Your task to perform on an android device: open device folders in google photos Image 0: 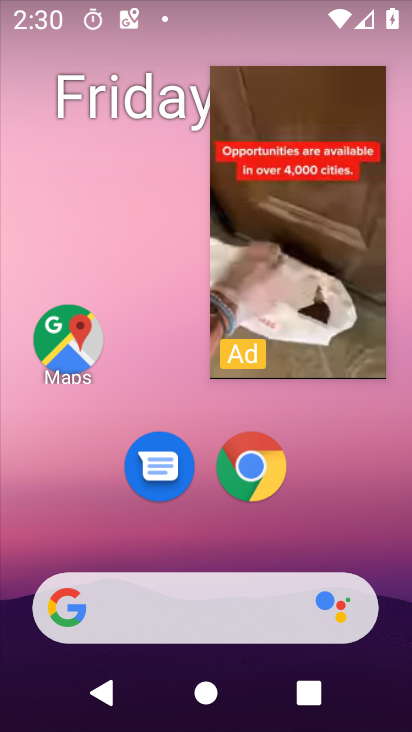
Step 0: click (361, 89)
Your task to perform on an android device: open device folders in google photos Image 1: 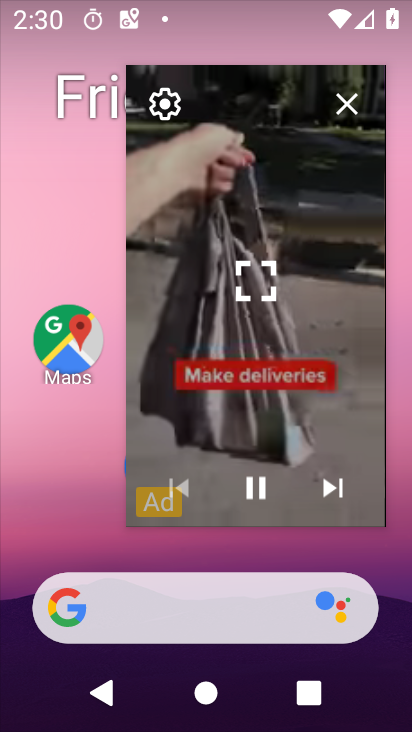
Step 1: click (347, 108)
Your task to perform on an android device: open device folders in google photos Image 2: 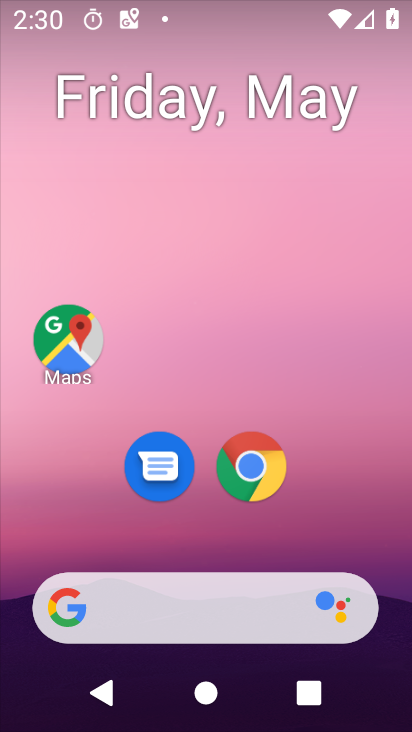
Step 2: drag from (365, 485) to (409, 74)
Your task to perform on an android device: open device folders in google photos Image 3: 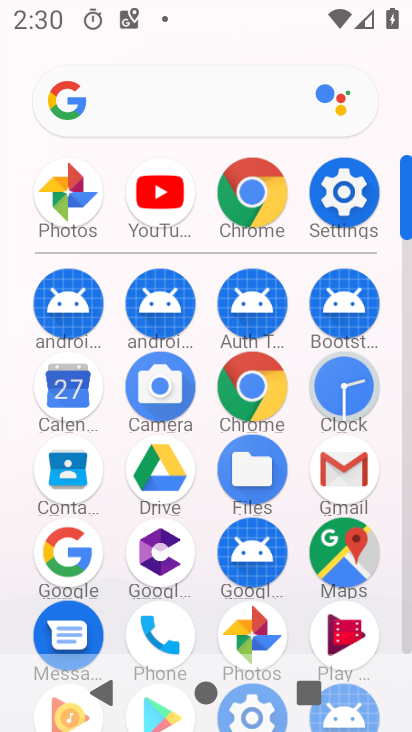
Step 3: click (75, 180)
Your task to perform on an android device: open device folders in google photos Image 4: 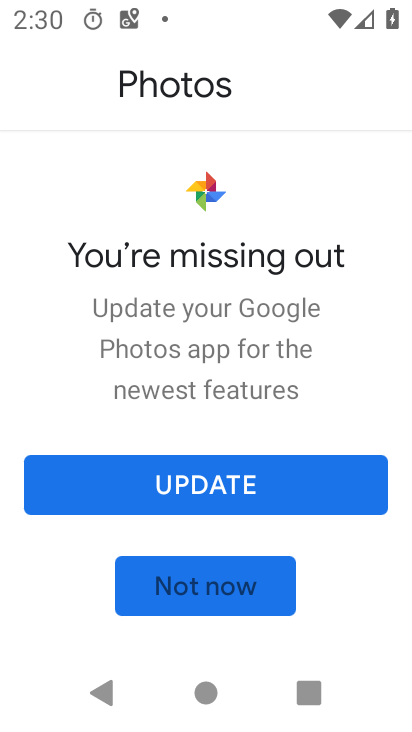
Step 4: click (178, 472)
Your task to perform on an android device: open device folders in google photos Image 5: 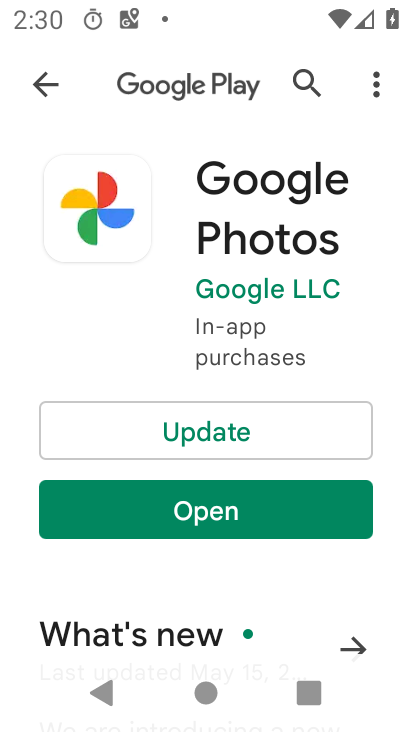
Step 5: click (210, 441)
Your task to perform on an android device: open device folders in google photos Image 6: 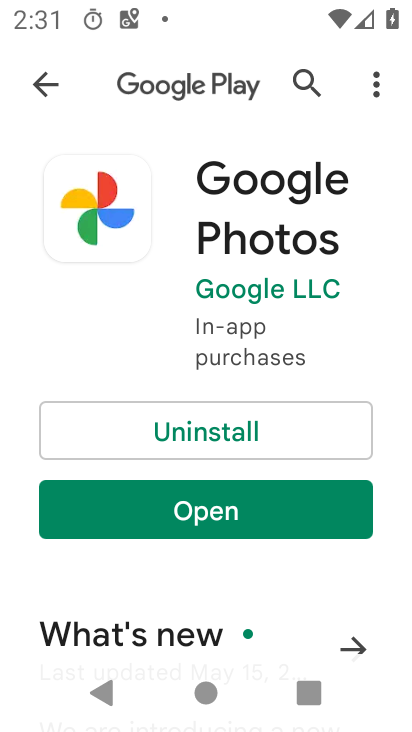
Step 6: click (263, 511)
Your task to perform on an android device: open device folders in google photos Image 7: 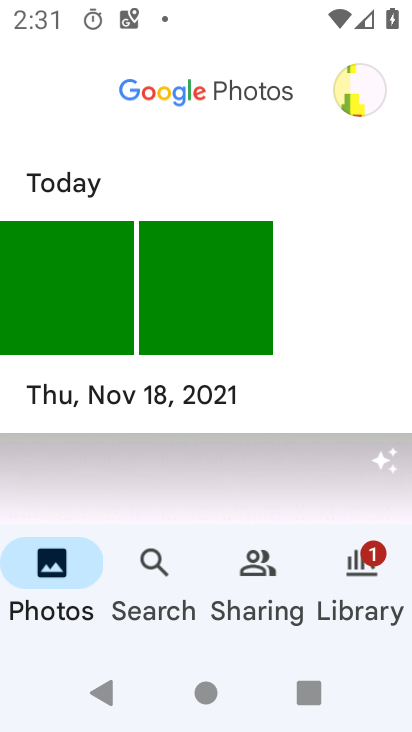
Step 7: task complete